Your task to perform on an android device: see tabs open on other devices in the chrome app Image 0: 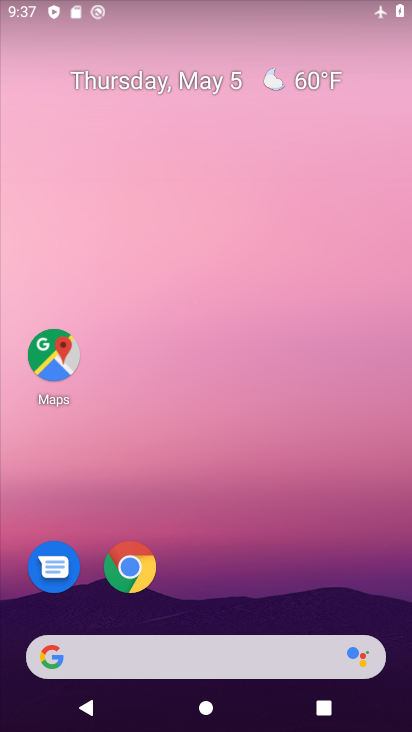
Step 0: click (122, 557)
Your task to perform on an android device: see tabs open on other devices in the chrome app Image 1: 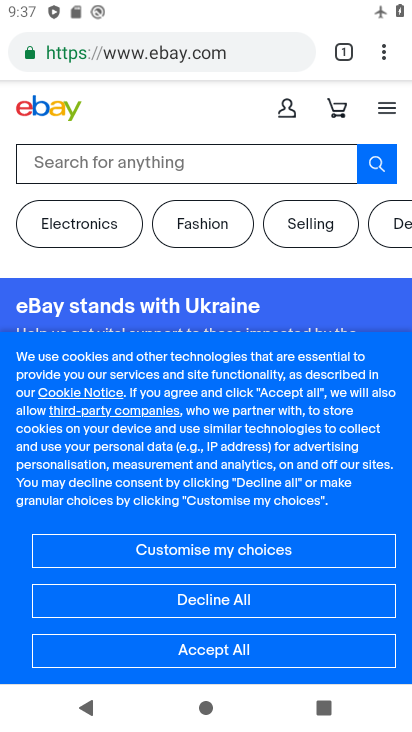
Step 1: click (383, 41)
Your task to perform on an android device: see tabs open on other devices in the chrome app Image 2: 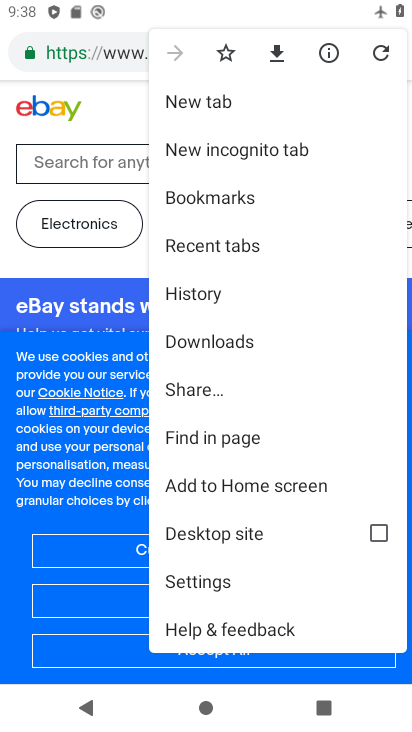
Step 2: click (264, 248)
Your task to perform on an android device: see tabs open on other devices in the chrome app Image 3: 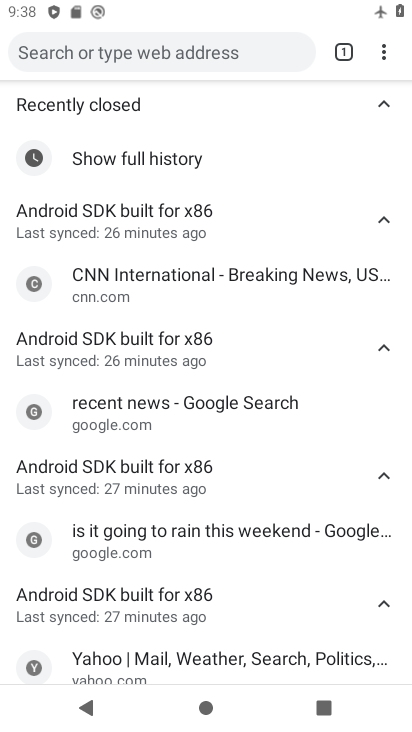
Step 3: task complete